Your task to perform on an android device: turn on data saver in the chrome app Image 0: 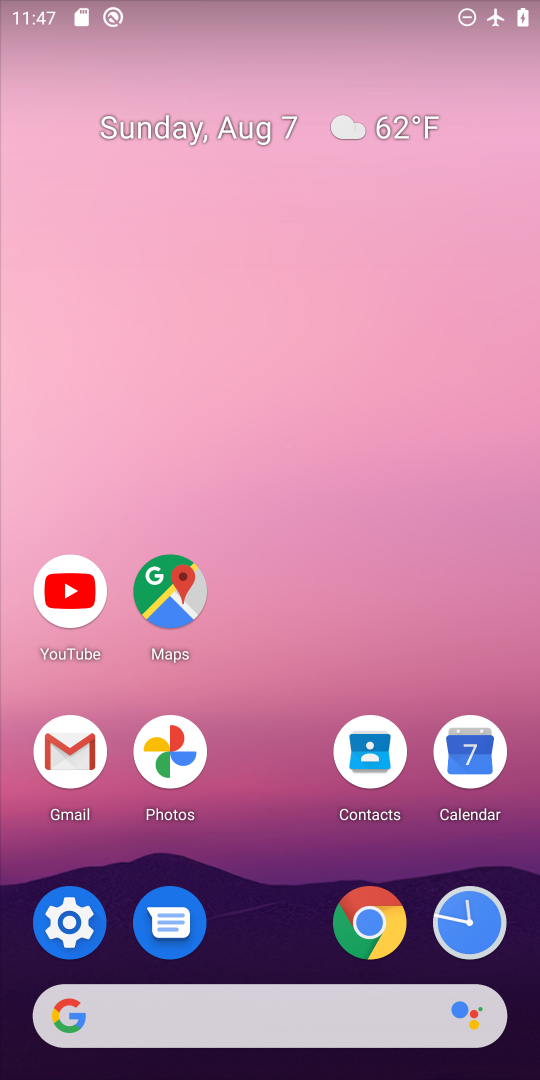
Step 0: click (377, 918)
Your task to perform on an android device: turn on data saver in the chrome app Image 1: 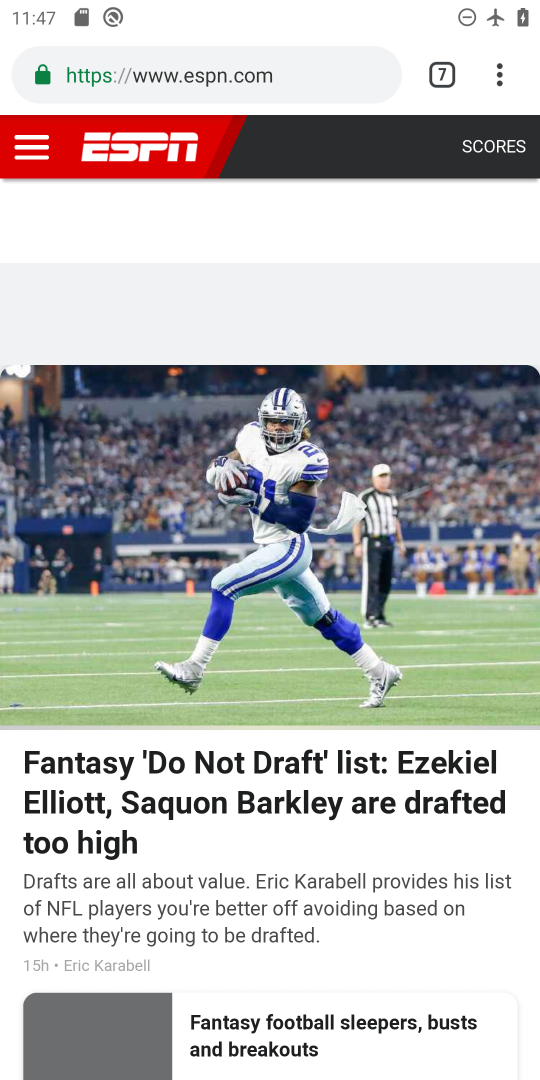
Step 1: click (503, 76)
Your task to perform on an android device: turn on data saver in the chrome app Image 2: 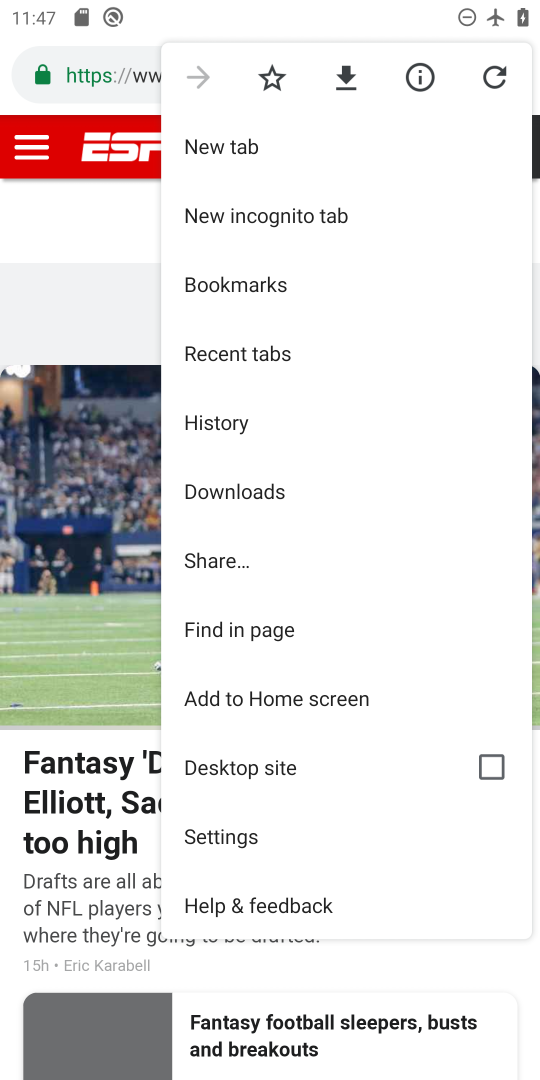
Step 2: click (214, 823)
Your task to perform on an android device: turn on data saver in the chrome app Image 3: 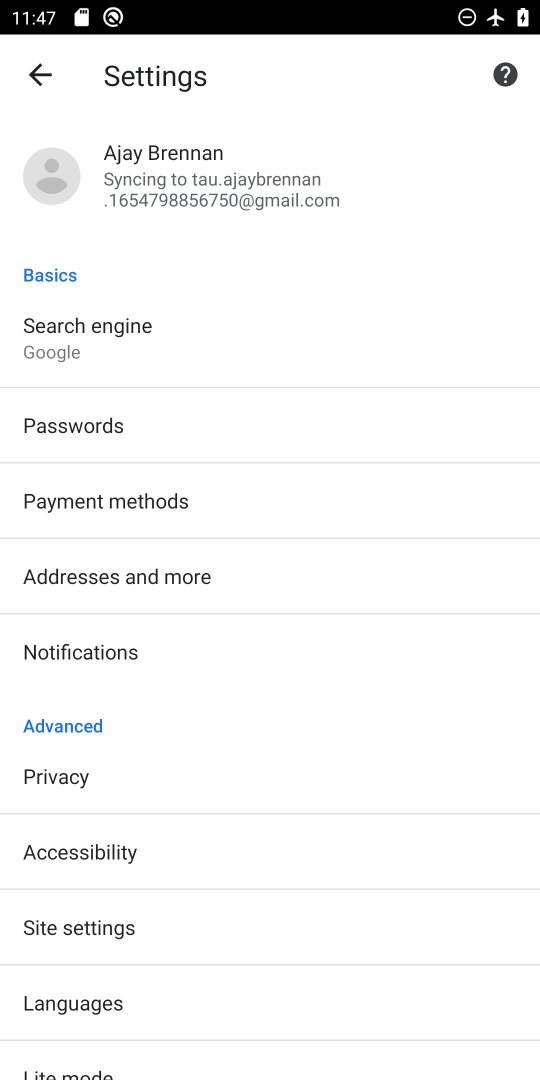
Step 3: drag from (207, 970) to (273, 427)
Your task to perform on an android device: turn on data saver in the chrome app Image 4: 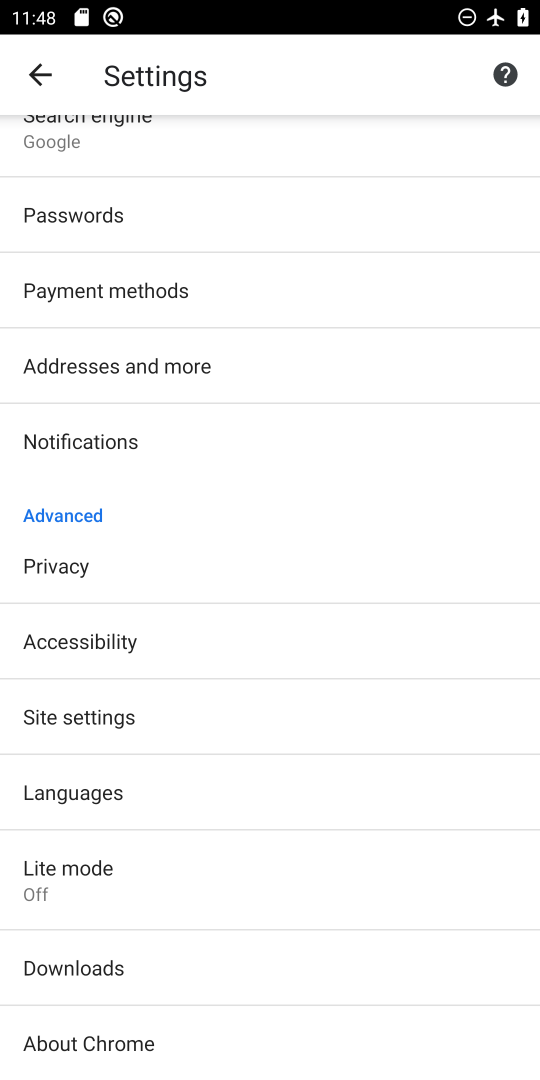
Step 4: click (66, 862)
Your task to perform on an android device: turn on data saver in the chrome app Image 5: 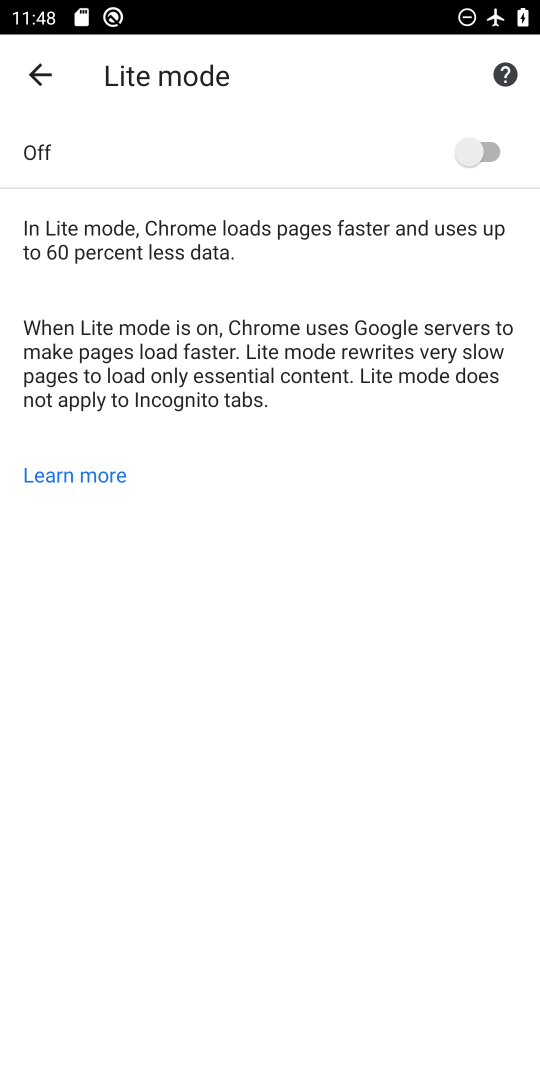
Step 5: click (468, 149)
Your task to perform on an android device: turn on data saver in the chrome app Image 6: 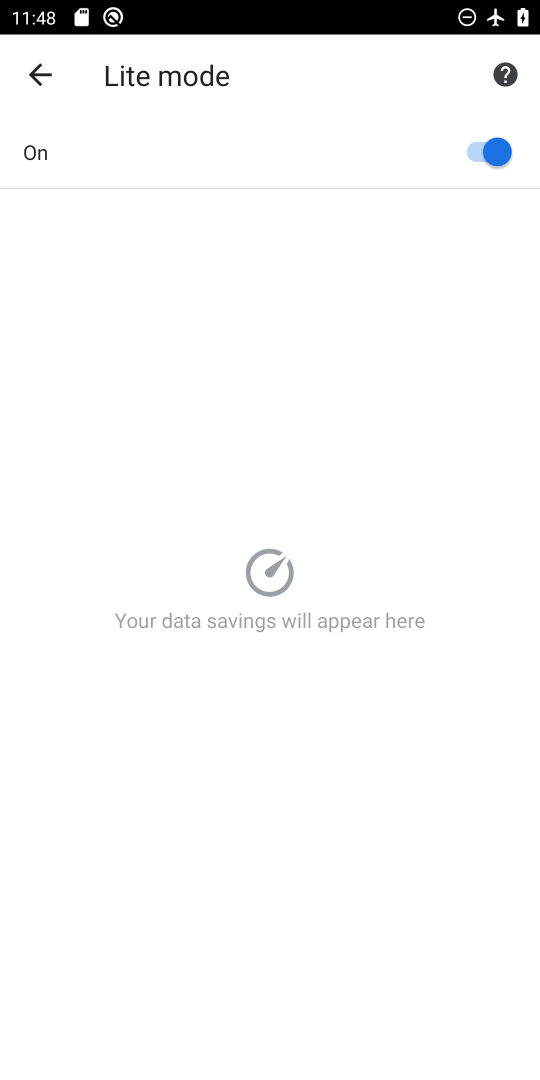
Step 6: task complete